Your task to perform on an android device: change keyboard looks Image 0: 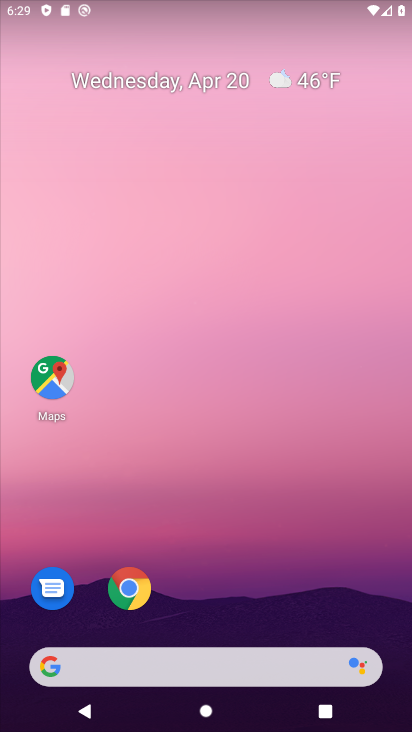
Step 0: drag from (366, 547) to (309, 2)
Your task to perform on an android device: change keyboard looks Image 1: 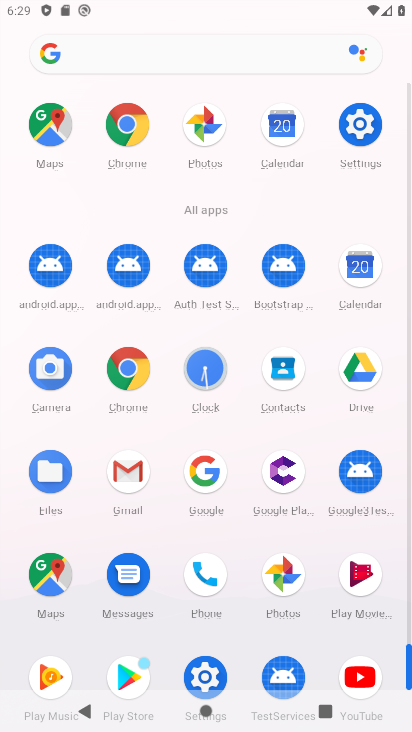
Step 1: click (218, 676)
Your task to perform on an android device: change keyboard looks Image 2: 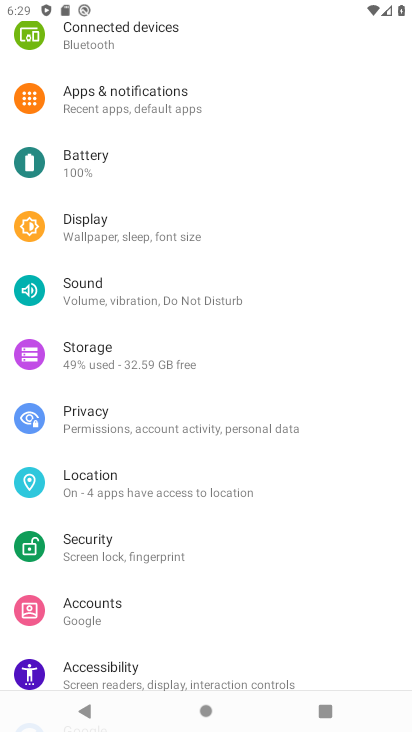
Step 2: drag from (218, 676) to (322, 136)
Your task to perform on an android device: change keyboard looks Image 3: 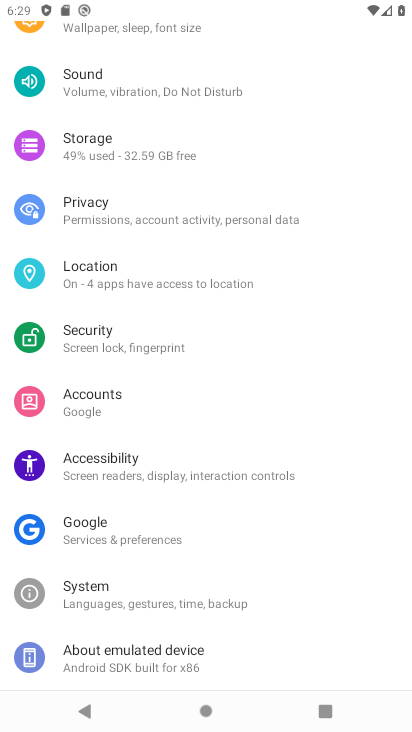
Step 3: click (142, 602)
Your task to perform on an android device: change keyboard looks Image 4: 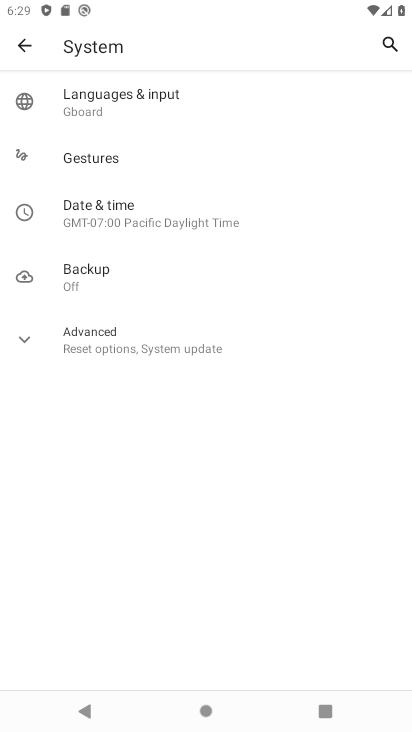
Step 4: click (139, 92)
Your task to perform on an android device: change keyboard looks Image 5: 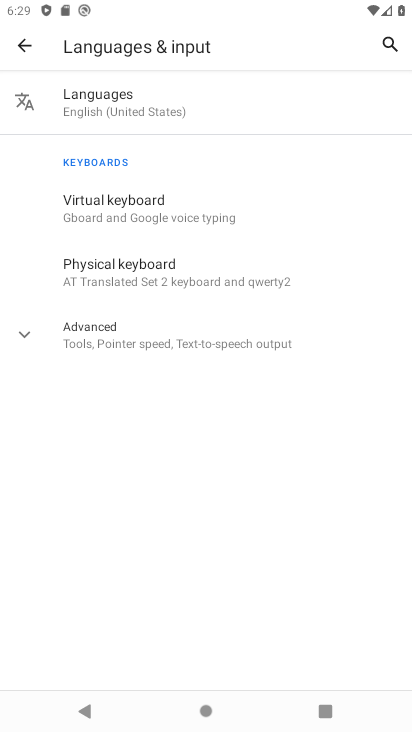
Step 5: click (147, 222)
Your task to perform on an android device: change keyboard looks Image 6: 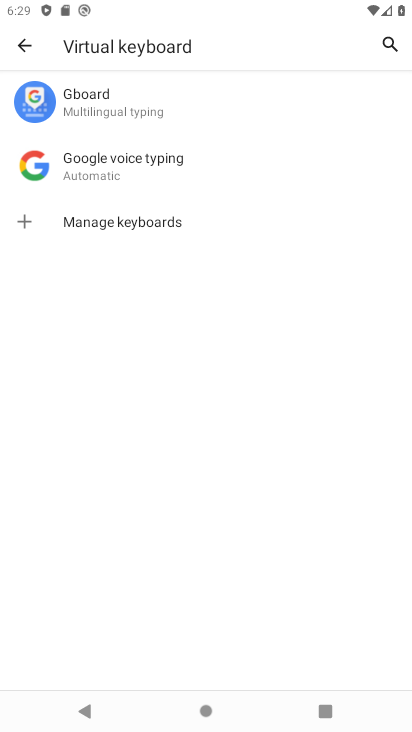
Step 6: click (169, 103)
Your task to perform on an android device: change keyboard looks Image 7: 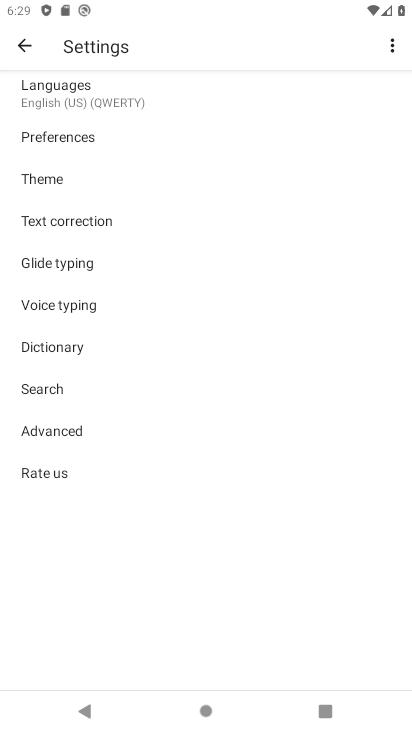
Step 7: click (99, 180)
Your task to perform on an android device: change keyboard looks Image 8: 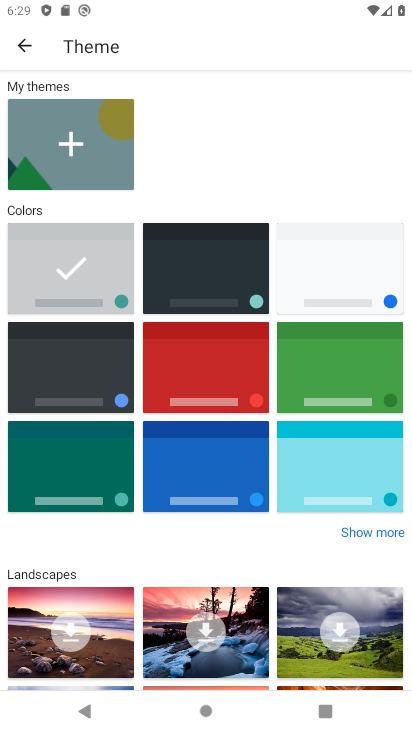
Step 8: click (226, 352)
Your task to perform on an android device: change keyboard looks Image 9: 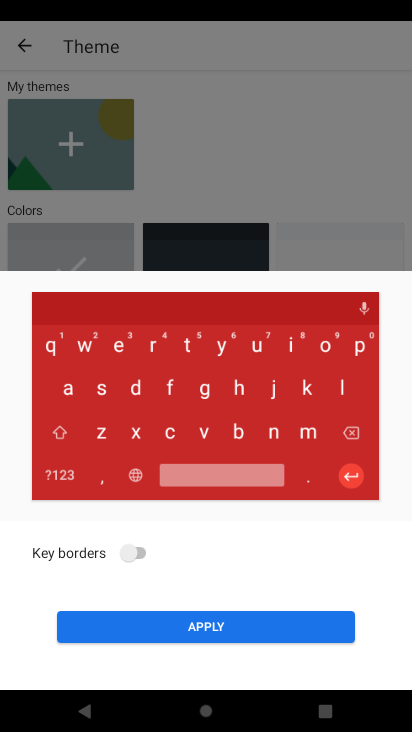
Step 9: click (134, 546)
Your task to perform on an android device: change keyboard looks Image 10: 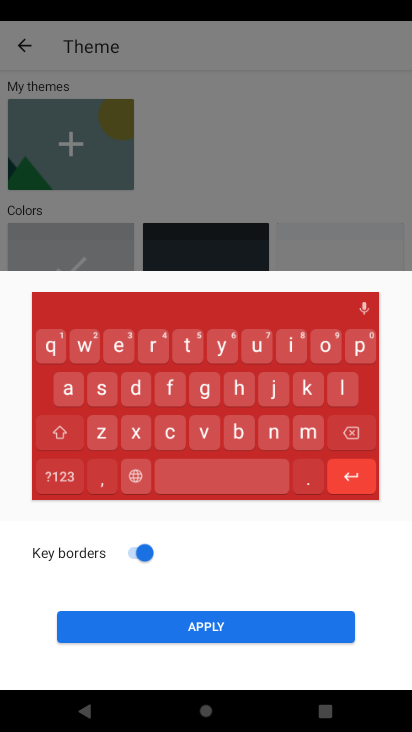
Step 10: click (138, 625)
Your task to perform on an android device: change keyboard looks Image 11: 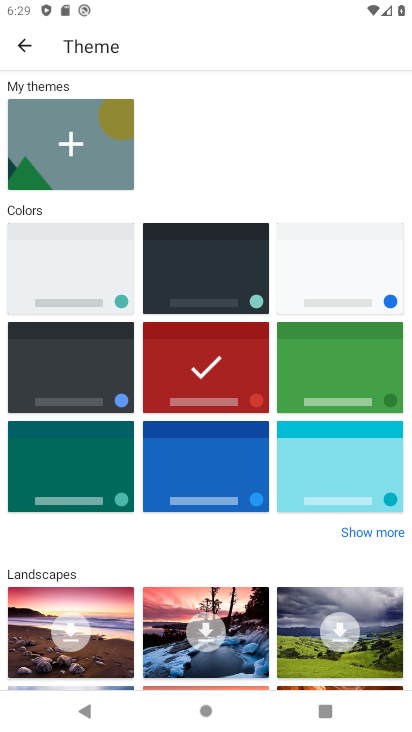
Step 11: task complete